Your task to perform on an android device: choose inbox layout in the gmail app Image 0: 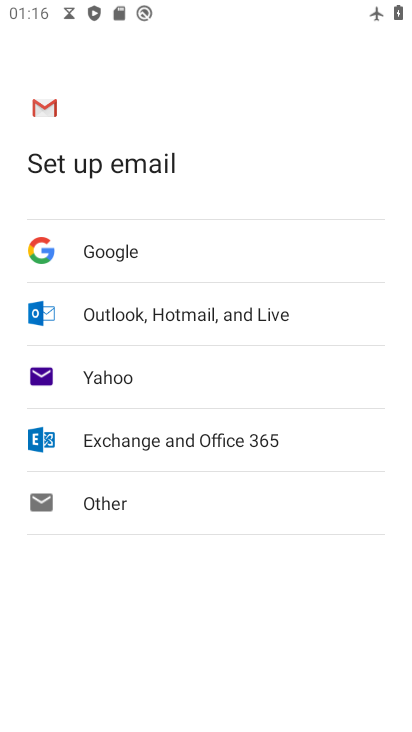
Step 0: press home button
Your task to perform on an android device: choose inbox layout in the gmail app Image 1: 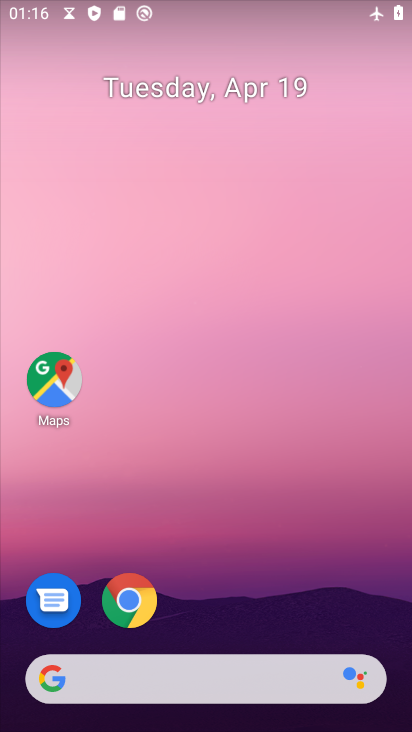
Step 1: drag from (211, 641) to (140, 45)
Your task to perform on an android device: choose inbox layout in the gmail app Image 2: 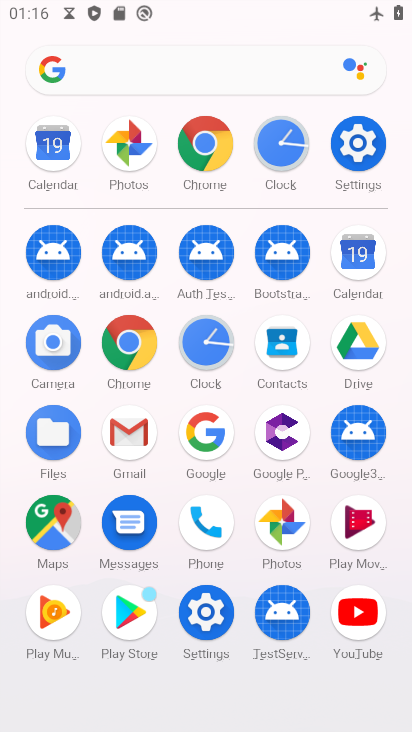
Step 2: click (135, 449)
Your task to perform on an android device: choose inbox layout in the gmail app Image 3: 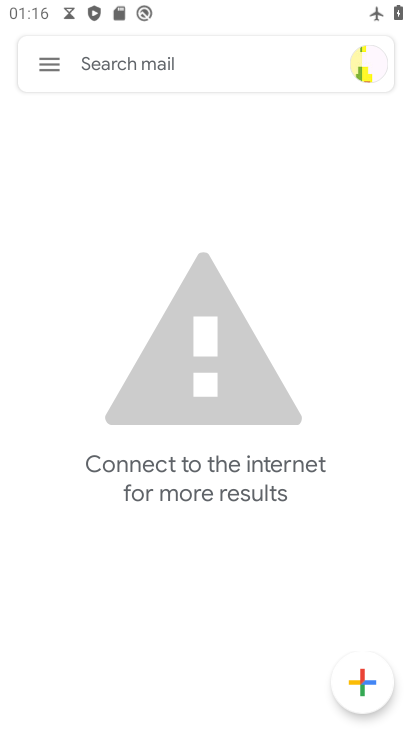
Step 3: click (52, 80)
Your task to perform on an android device: choose inbox layout in the gmail app Image 4: 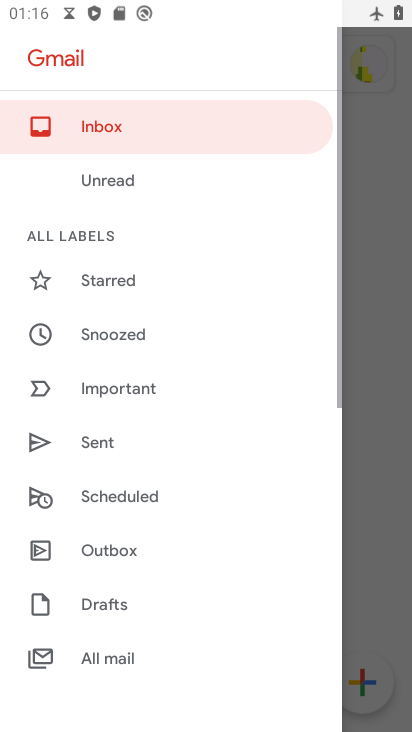
Step 4: task complete